Your task to perform on an android device: delete the emails in spam in the gmail app Image 0: 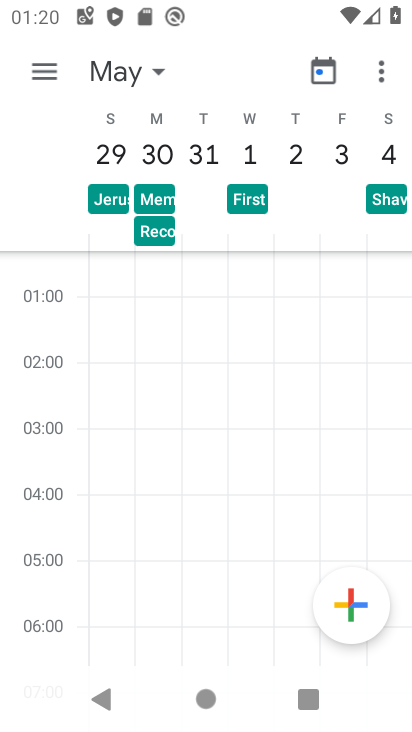
Step 0: press home button
Your task to perform on an android device: delete the emails in spam in the gmail app Image 1: 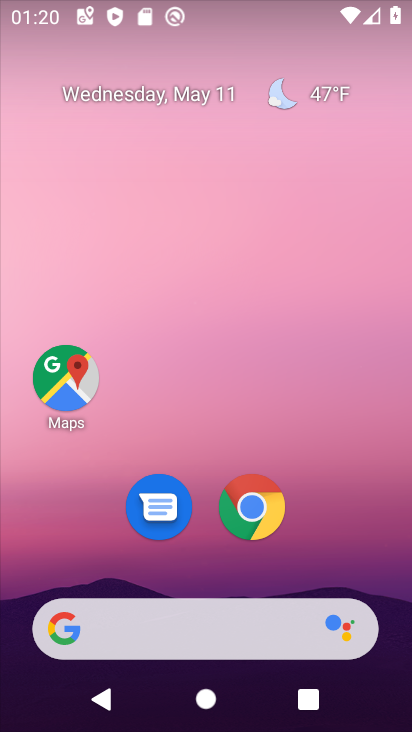
Step 1: drag from (332, 513) to (205, 43)
Your task to perform on an android device: delete the emails in spam in the gmail app Image 2: 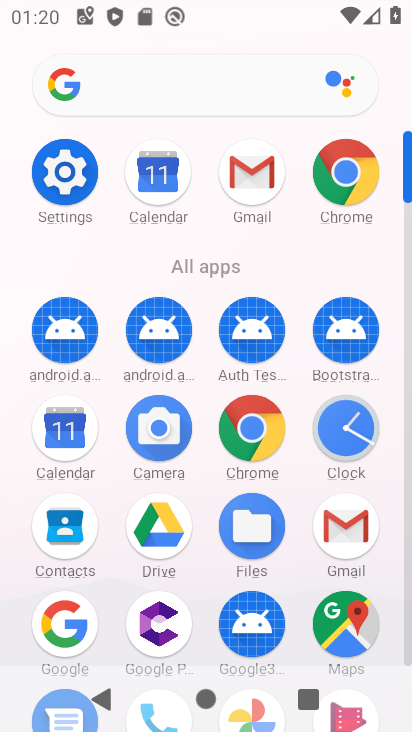
Step 2: click (247, 183)
Your task to perform on an android device: delete the emails in spam in the gmail app Image 3: 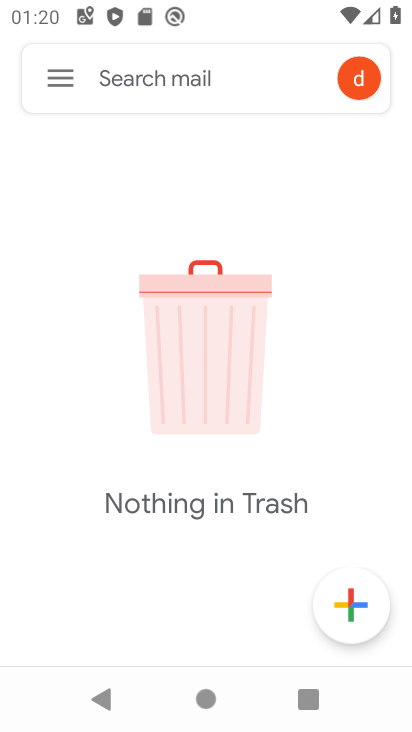
Step 3: click (58, 76)
Your task to perform on an android device: delete the emails in spam in the gmail app Image 4: 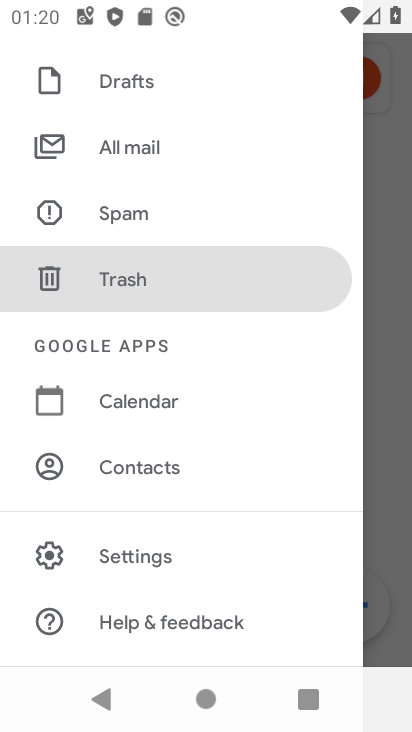
Step 4: click (129, 214)
Your task to perform on an android device: delete the emails in spam in the gmail app Image 5: 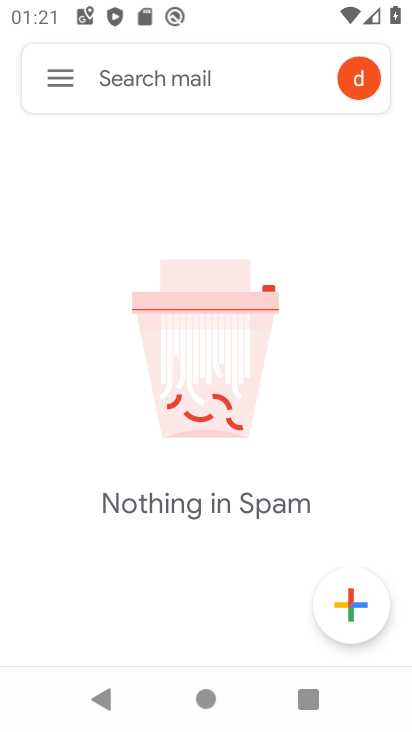
Step 5: task complete